Your task to perform on an android device: open chrome and create a bookmark for the current page Image 0: 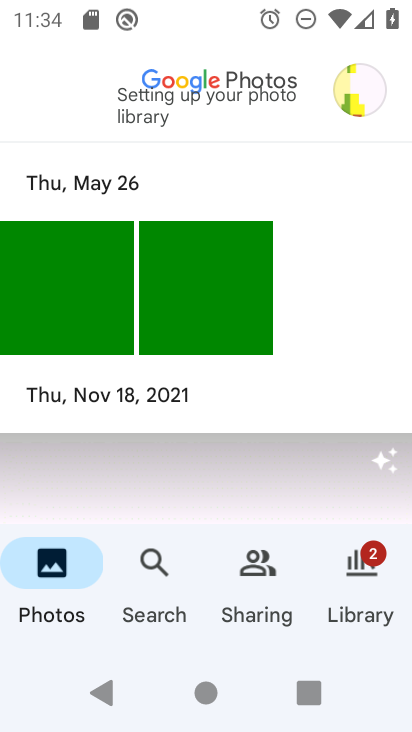
Step 0: press home button
Your task to perform on an android device: open chrome and create a bookmark for the current page Image 1: 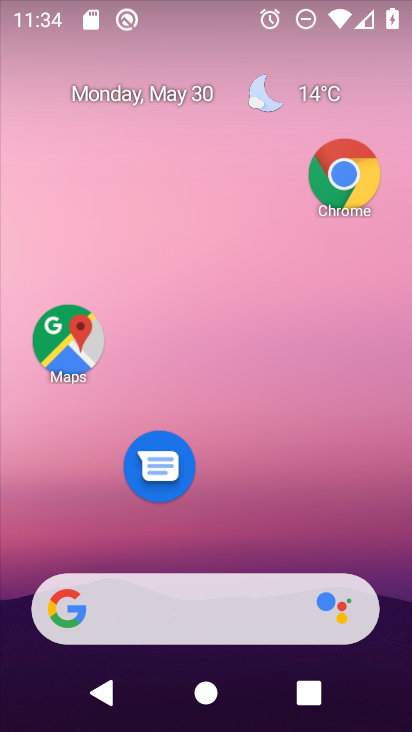
Step 1: click (334, 181)
Your task to perform on an android device: open chrome and create a bookmark for the current page Image 2: 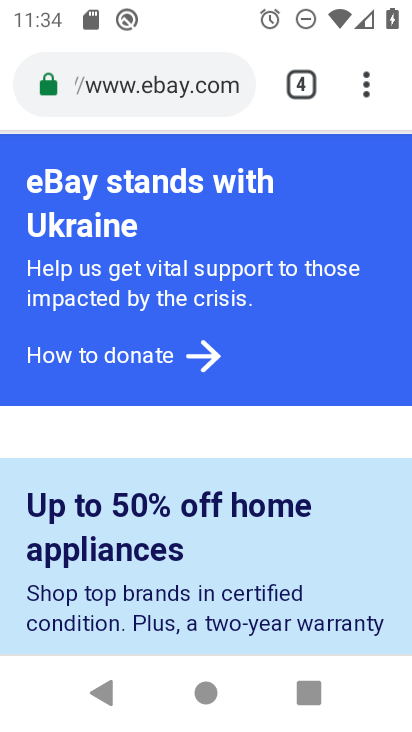
Step 2: click (362, 84)
Your task to perform on an android device: open chrome and create a bookmark for the current page Image 3: 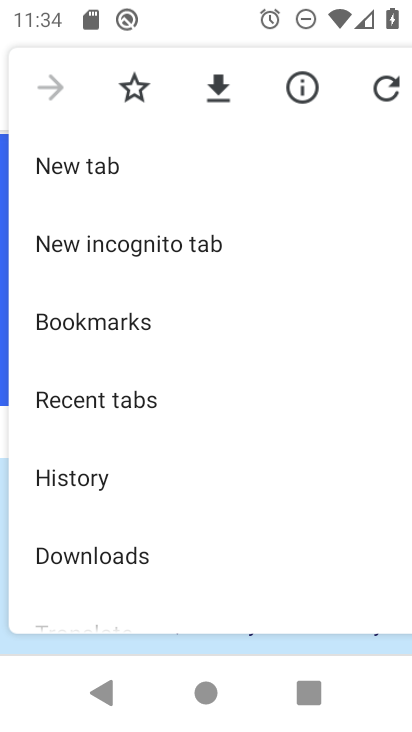
Step 3: click (154, 315)
Your task to perform on an android device: open chrome and create a bookmark for the current page Image 4: 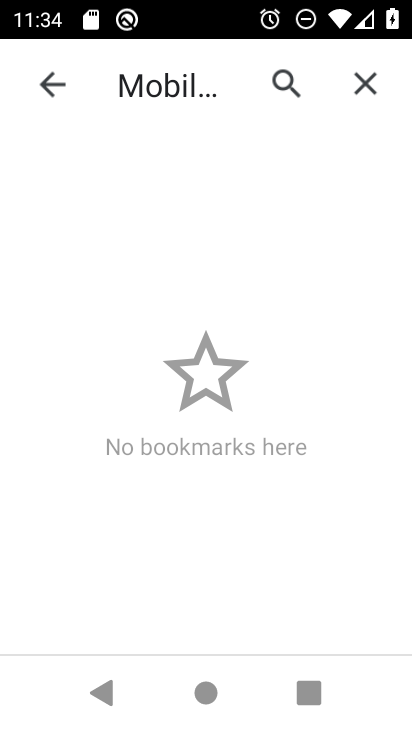
Step 4: click (281, 86)
Your task to perform on an android device: open chrome and create a bookmark for the current page Image 5: 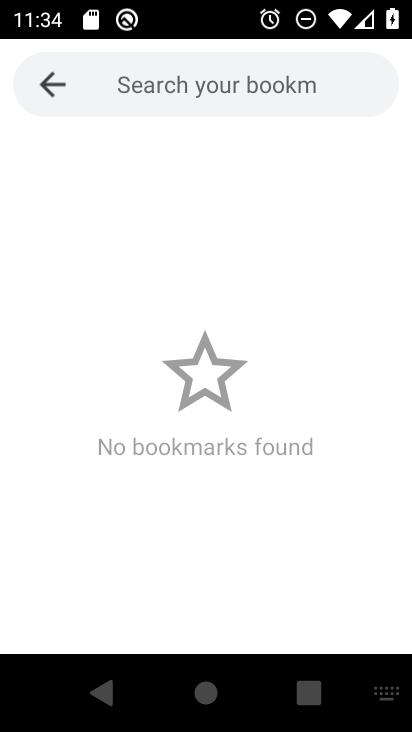
Step 5: click (47, 84)
Your task to perform on an android device: open chrome and create a bookmark for the current page Image 6: 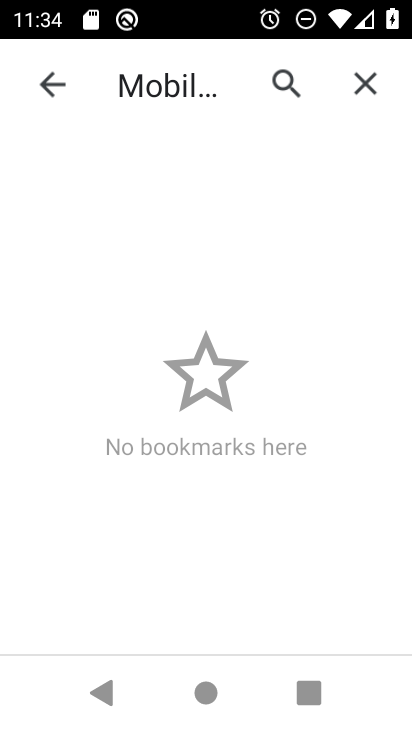
Step 6: click (47, 84)
Your task to perform on an android device: open chrome and create a bookmark for the current page Image 7: 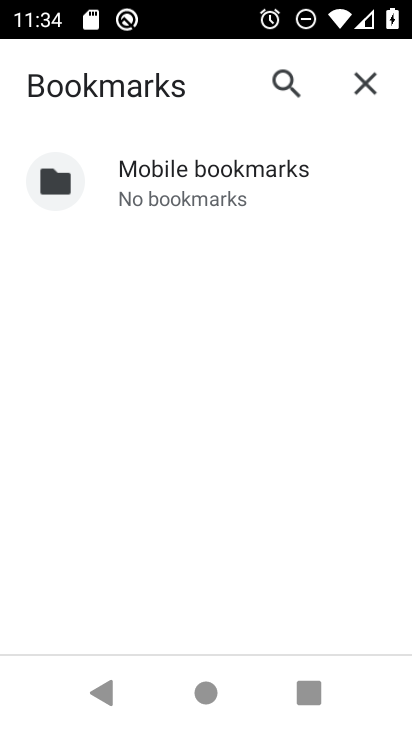
Step 7: click (286, 410)
Your task to perform on an android device: open chrome and create a bookmark for the current page Image 8: 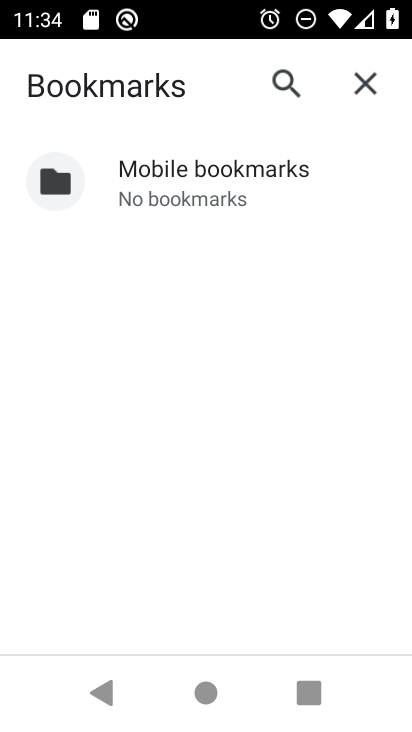
Step 8: task complete